Your task to perform on an android device: Do I have any events tomorrow? Image 0: 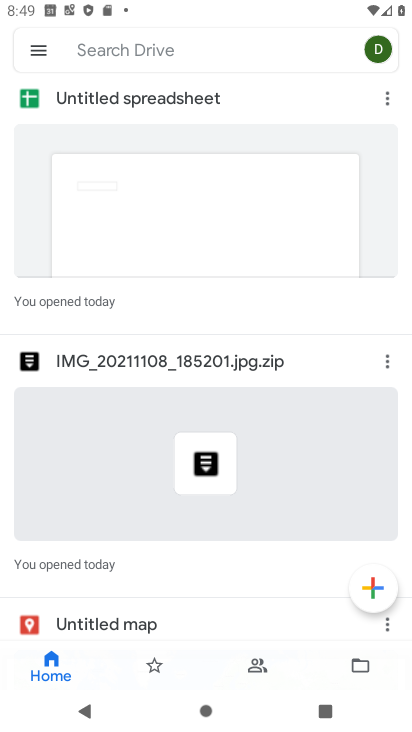
Step 0: press home button
Your task to perform on an android device: Do I have any events tomorrow? Image 1: 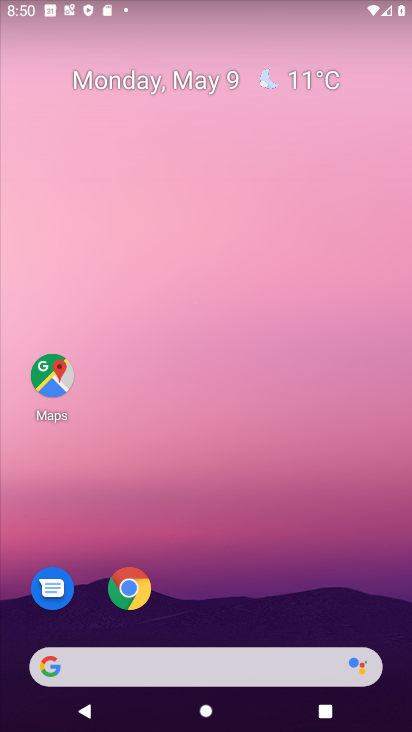
Step 1: drag from (140, 665) to (224, 190)
Your task to perform on an android device: Do I have any events tomorrow? Image 2: 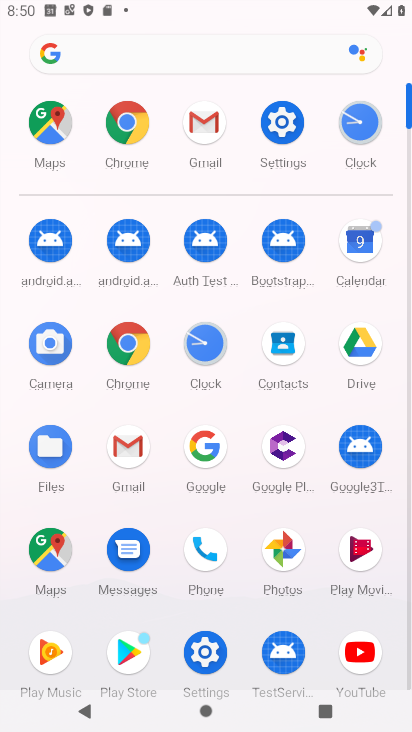
Step 2: click (351, 249)
Your task to perform on an android device: Do I have any events tomorrow? Image 3: 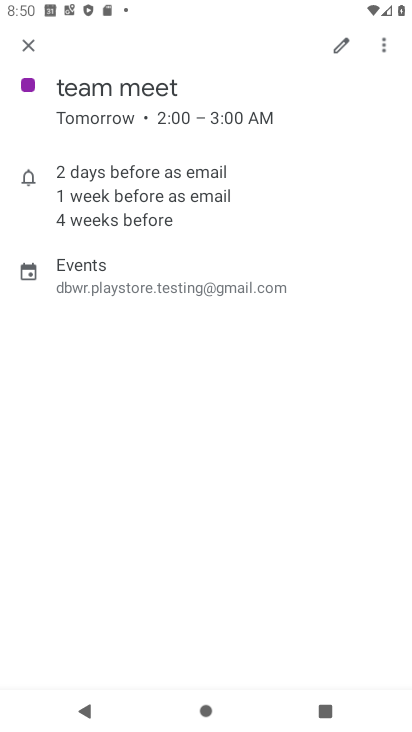
Step 3: task complete